Your task to perform on an android device: Go to accessibility settings Image 0: 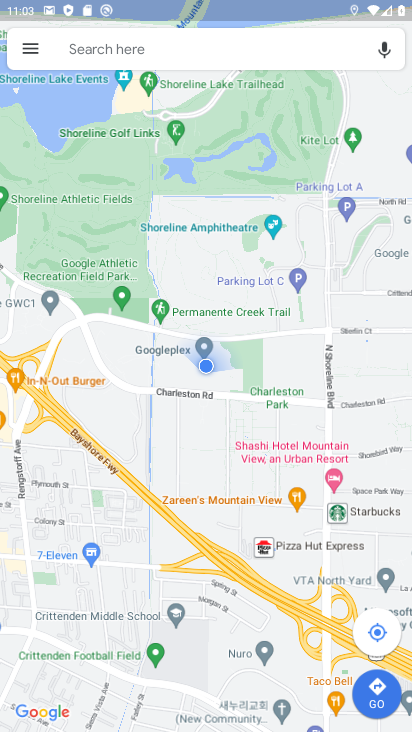
Step 0: click (104, 50)
Your task to perform on an android device: Go to accessibility settings Image 1: 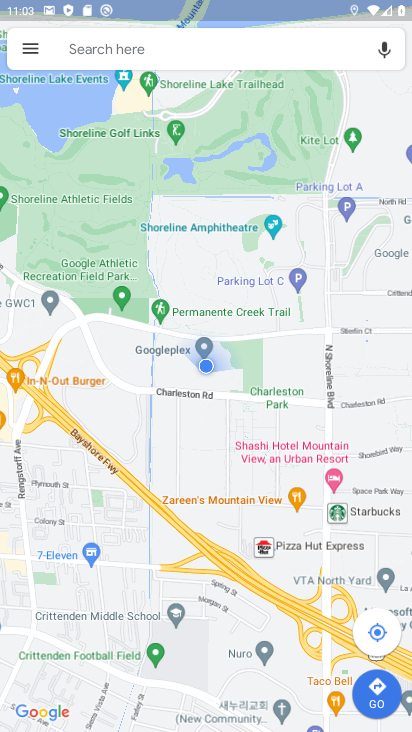
Step 1: click (106, 49)
Your task to perform on an android device: Go to accessibility settings Image 2: 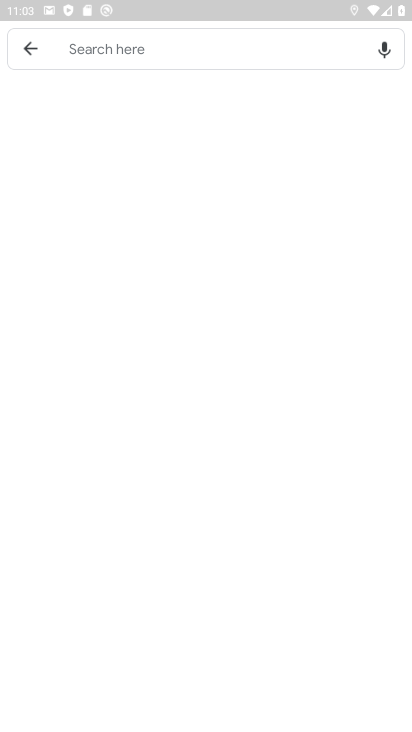
Step 2: click (113, 48)
Your task to perform on an android device: Go to accessibility settings Image 3: 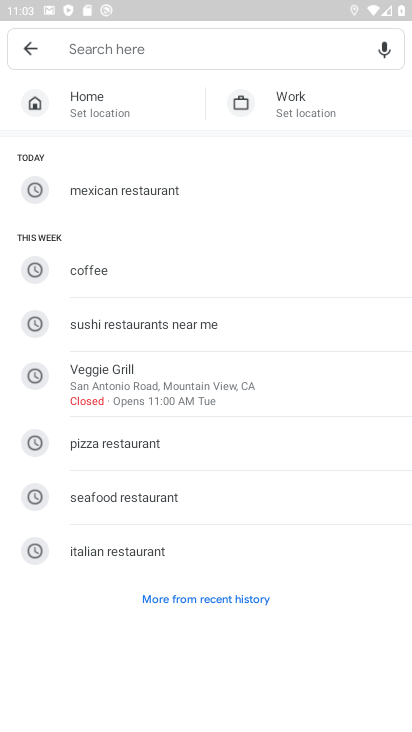
Step 3: click (113, 48)
Your task to perform on an android device: Go to accessibility settings Image 4: 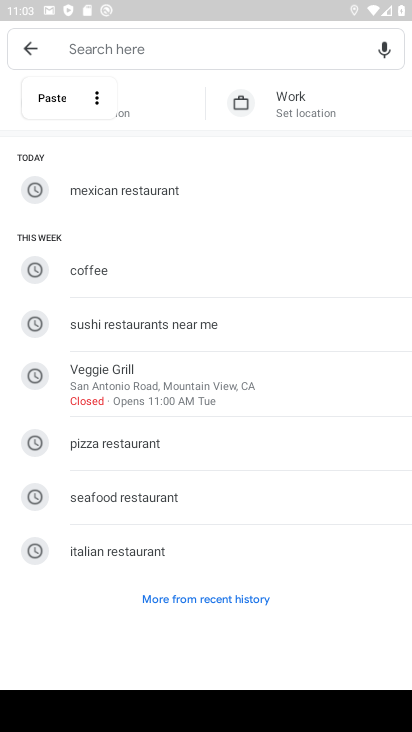
Step 4: click (33, 44)
Your task to perform on an android device: Go to accessibility settings Image 5: 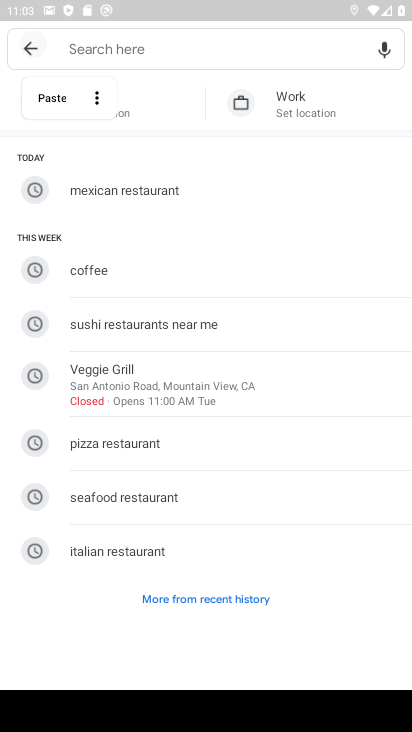
Step 5: click (29, 43)
Your task to perform on an android device: Go to accessibility settings Image 6: 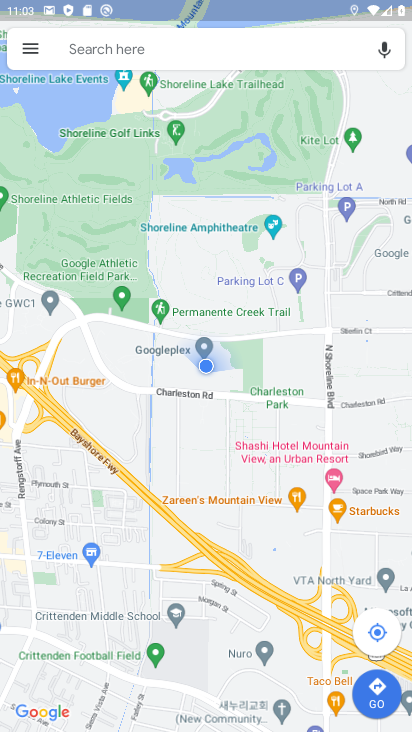
Step 6: press back button
Your task to perform on an android device: Go to accessibility settings Image 7: 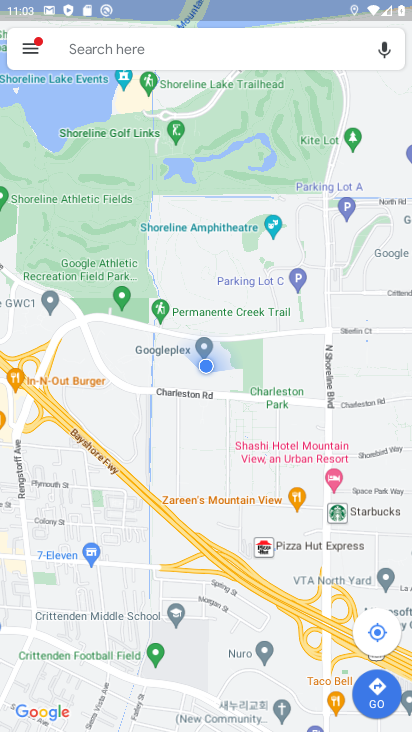
Step 7: press back button
Your task to perform on an android device: Go to accessibility settings Image 8: 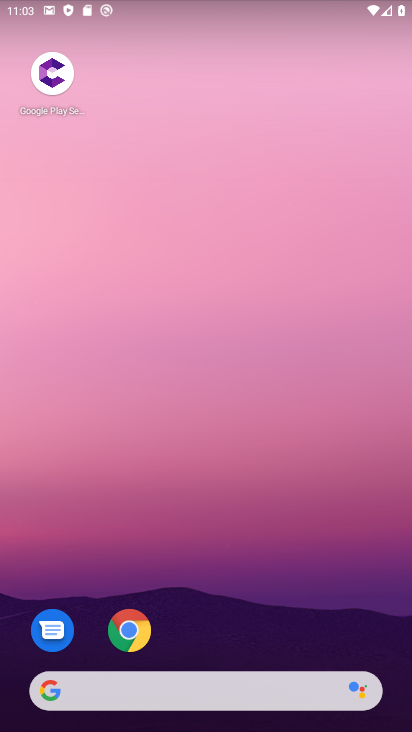
Step 8: drag from (82, 248) to (104, 13)
Your task to perform on an android device: Go to accessibility settings Image 9: 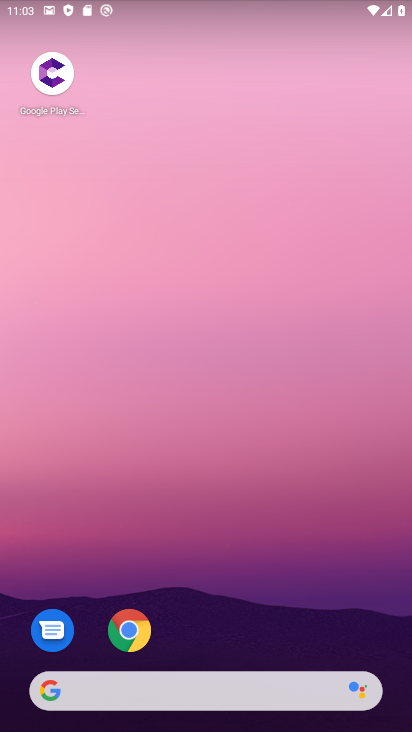
Step 9: drag from (152, 484) to (90, 67)
Your task to perform on an android device: Go to accessibility settings Image 10: 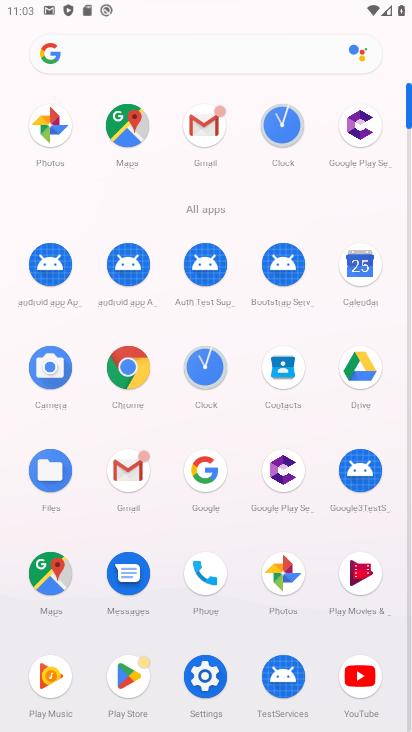
Step 10: drag from (145, 504) to (89, 102)
Your task to perform on an android device: Go to accessibility settings Image 11: 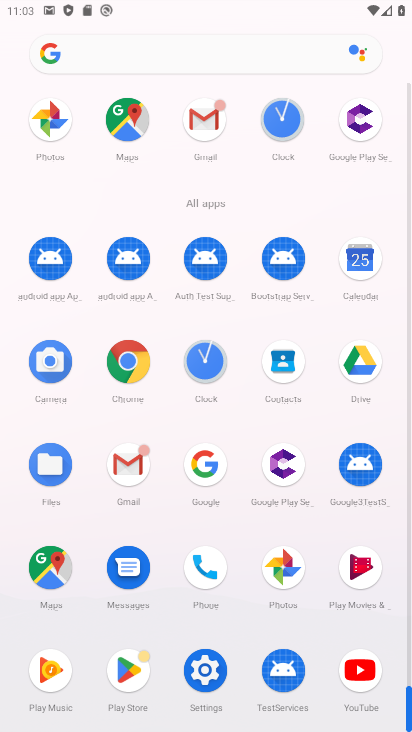
Step 11: click (200, 681)
Your task to perform on an android device: Go to accessibility settings Image 12: 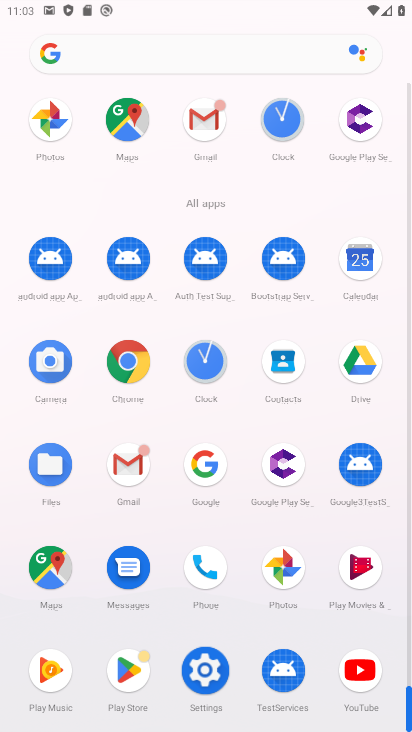
Step 12: click (200, 677)
Your task to perform on an android device: Go to accessibility settings Image 13: 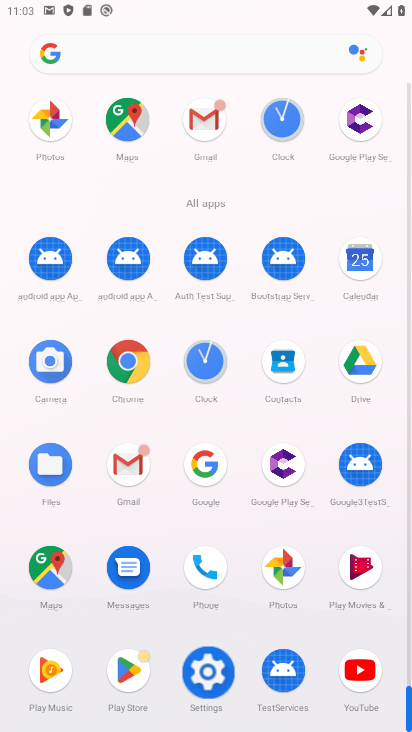
Step 13: click (200, 677)
Your task to perform on an android device: Go to accessibility settings Image 14: 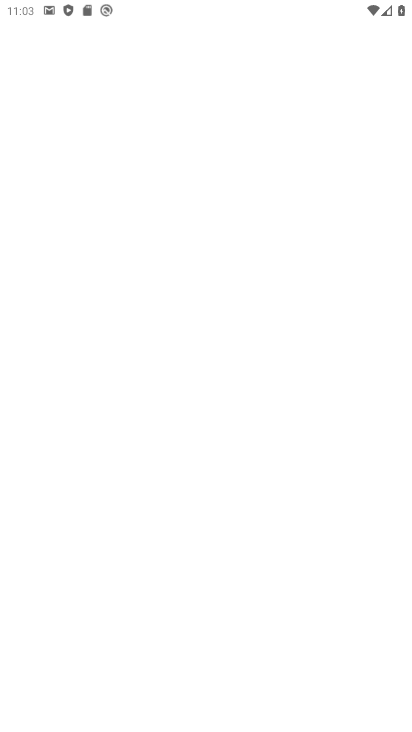
Step 14: click (208, 678)
Your task to perform on an android device: Go to accessibility settings Image 15: 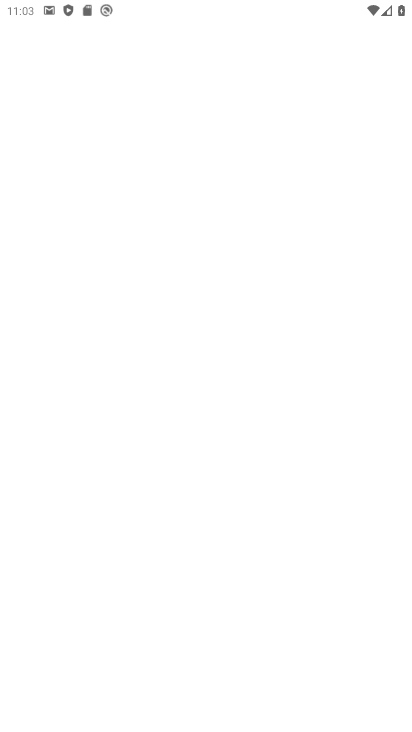
Step 15: click (208, 677)
Your task to perform on an android device: Go to accessibility settings Image 16: 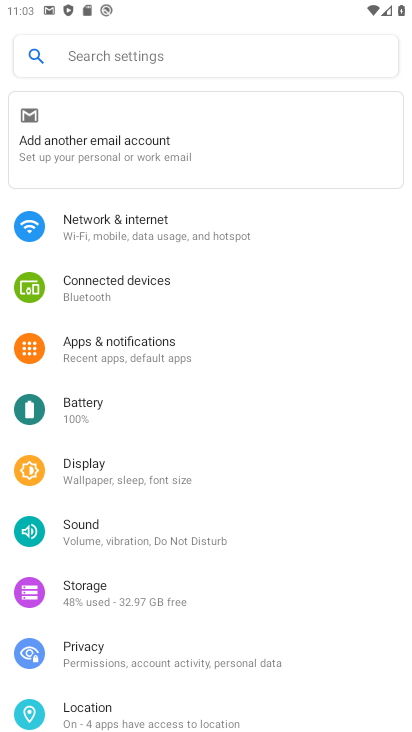
Step 16: drag from (128, 597) to (128, 296)
Your task to perform on an android device: Go to accessibility settings Image 17: 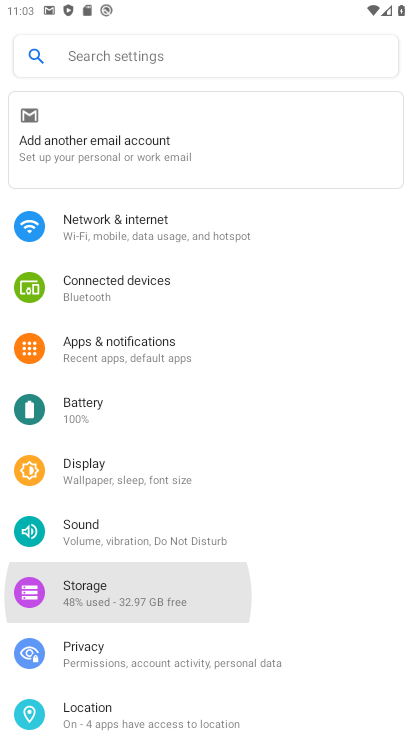
Step 17: drag from (194, 344) to (181, 145)
Your task to perform on an android device: Go to accessibility settings Image 18: 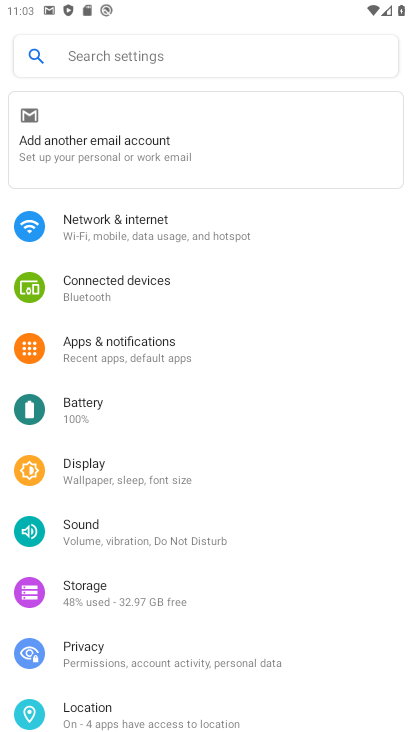
Step 18: drag from (183, 413) to (191, 80)
Your task to perform on an android device: Go to accessibility settings Image 19: 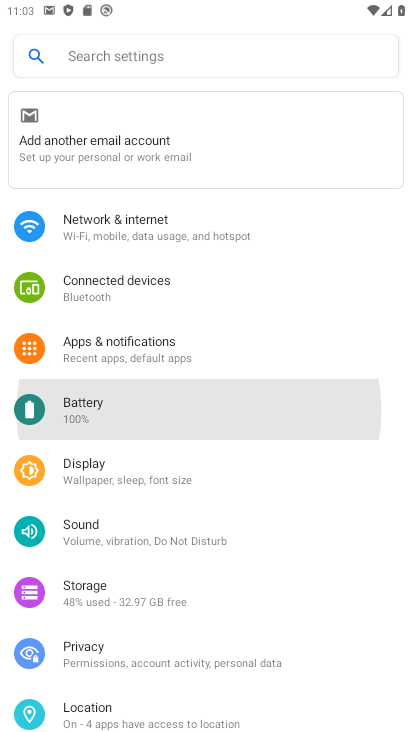
Step 19: drag from (142, 462) to (138, 260)
Your task to perform on an android device: Go to accessibility settings Image 20: 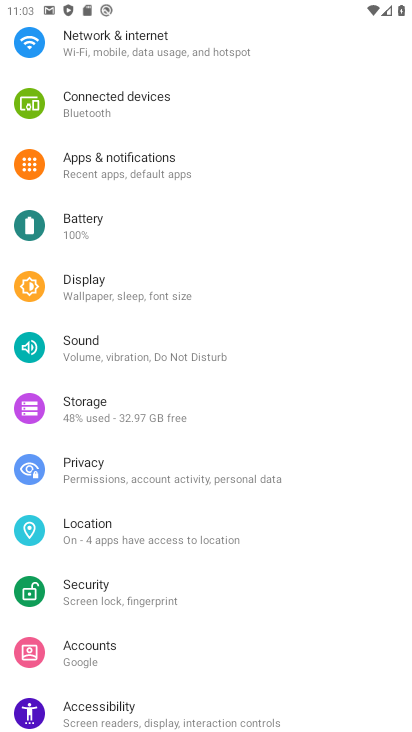
Step 20: drag from (119, 467) to (177, 234)
Your task to perform on an android device: Go to accessibility settings Image 21: 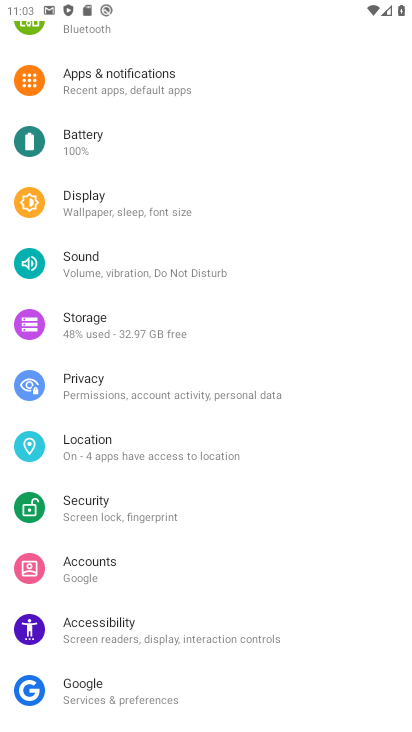
Step 21: drag from (176, 526) to (178, 288)
Your task to perform on an android device: Go to accessibility settings Image 22: 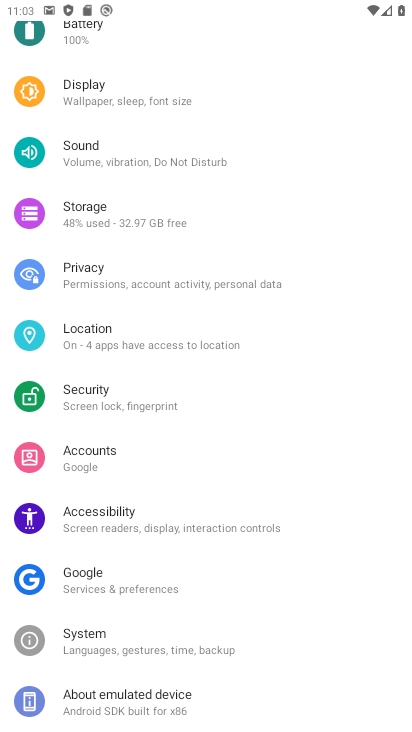
Step 22: click (95, 519)
Your task to perform on an android device: Go to accessibility settings Image 23: 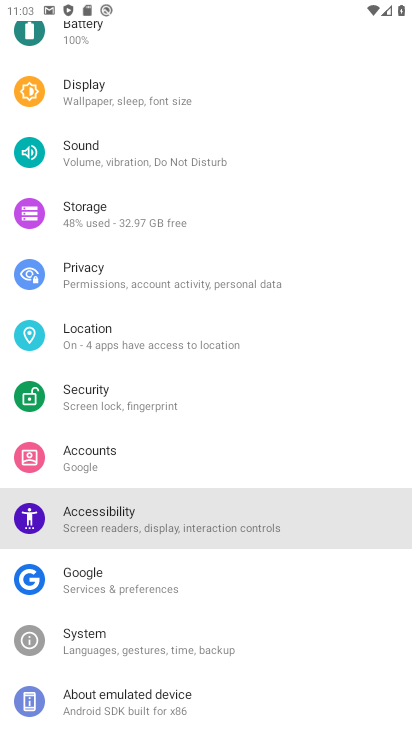
Step 23: click (96, 515)
Your task to perform on an android device: Go to accessibility settings Image 24: 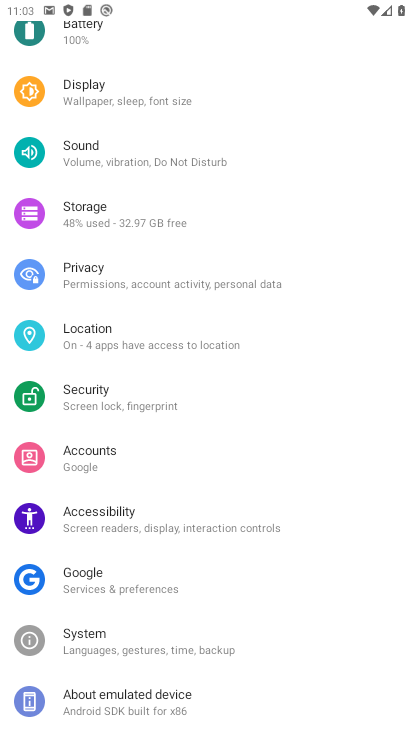
Step 24: click (96, 515)
Your task to perform on an android device: Go to accessibility settings Image 25: 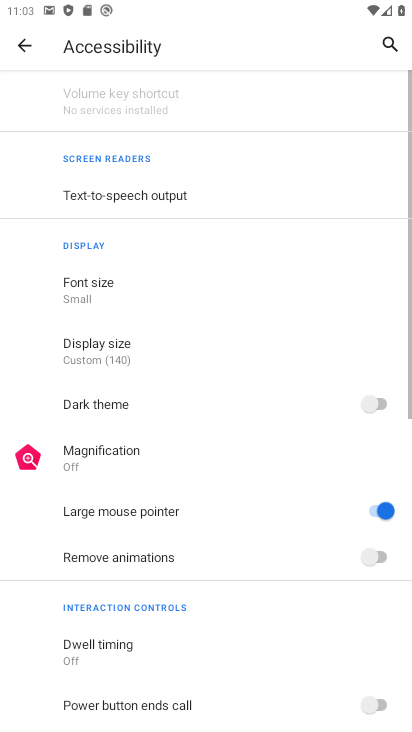
Step 25: task complete